Your task to perform on an android device: change notification settings in the gmail app Image 0: 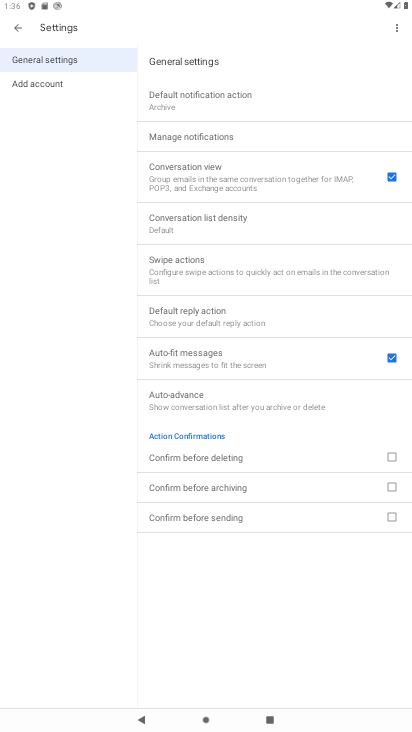
Step 0: press home button
Your task to perform on an android device: change notification settings in the gmail app Image 1: 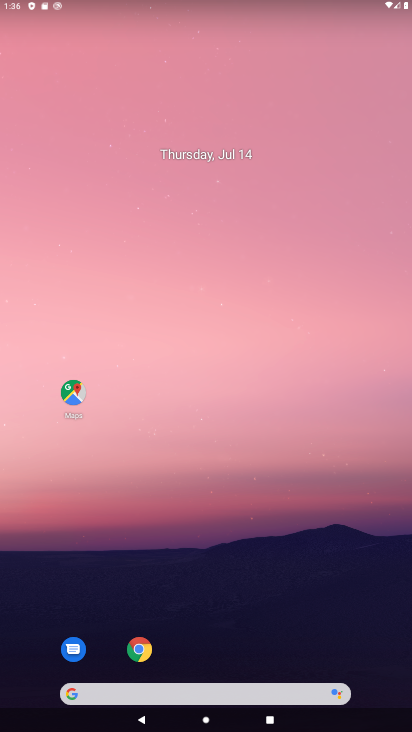
Step 1: drag from (225, 663) to (243, 127)
Your task to perform on an android device: change notification settings in the gmail app Image 2: 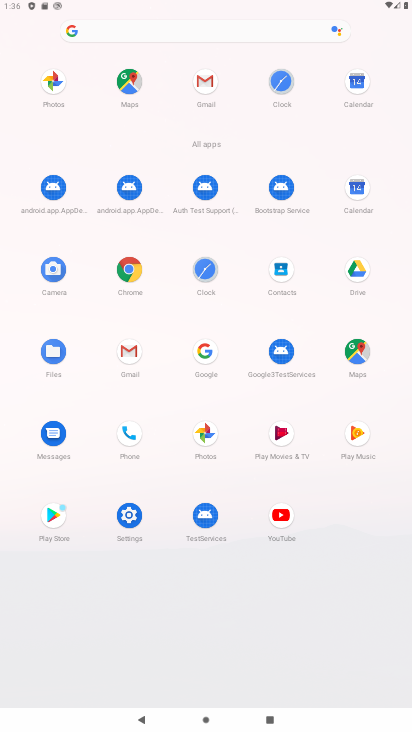
Step 2: click (131, 354)
Your task to perform on an android device: change notification settings in the gmail app Image 3: 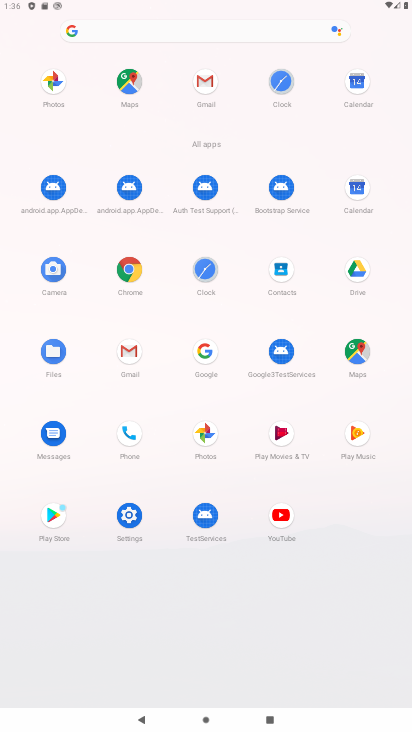
Step 3: click (128, 348)
Your task to perform on an android device: change notification settings in the gmail app Image 4: 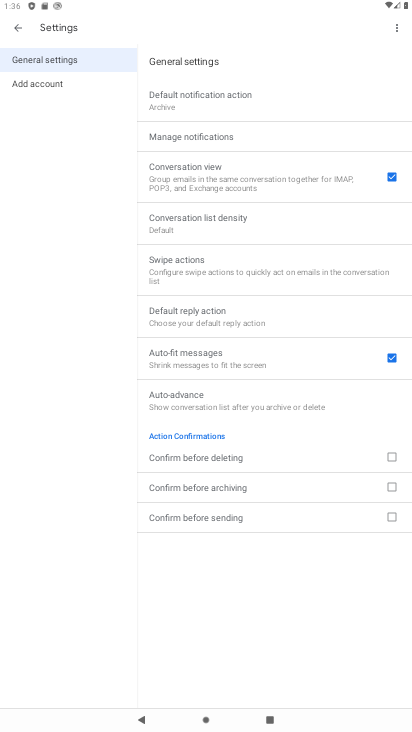
Step 4: press back button
Your task to perform on an android device: change notification settings in the gmail app Image 5: 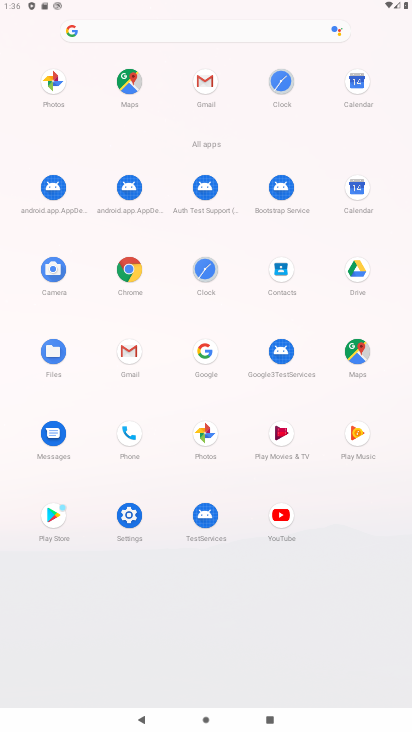
Step 5: click (113, 352)
Your task to perform on an android device: change notification settings in the gmail app Image 6: 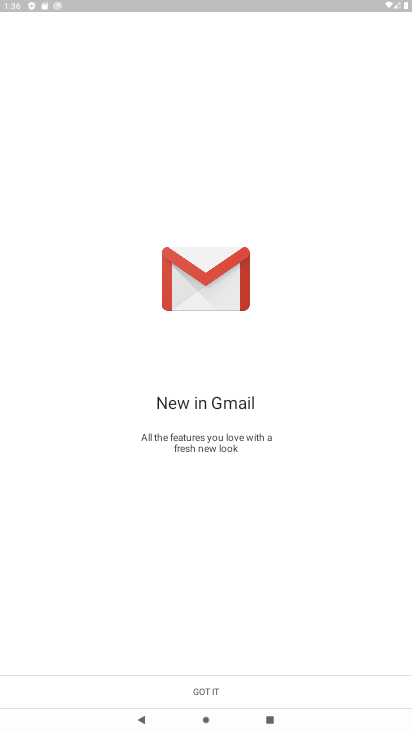
Step 6: click (205, 685)
Your task to perform on an android device: change notification settings in the gmail app Image 7: 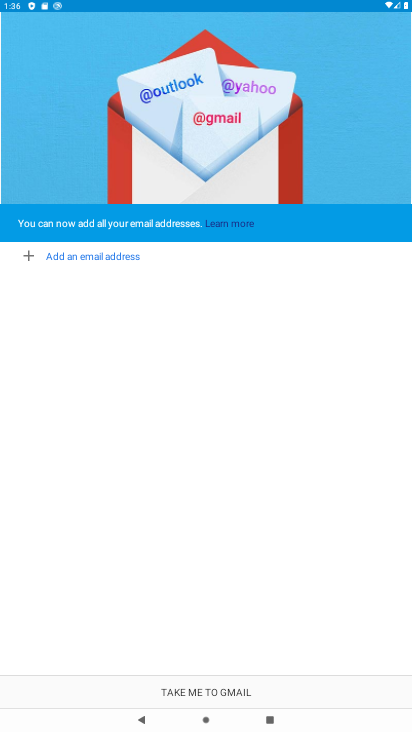
Step 7: click (205, 685)
Your task to perform on an android device: change notification settings in the gmail app Image 8: 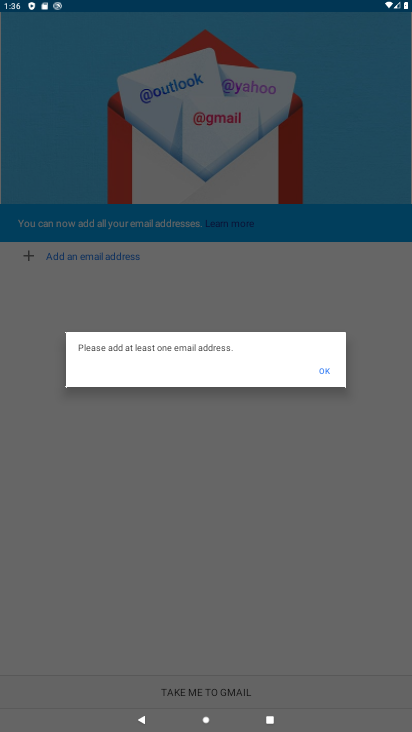
Step 8: task complete